Your task to perform on an android device: Do I have any events this weekend? Image 0: 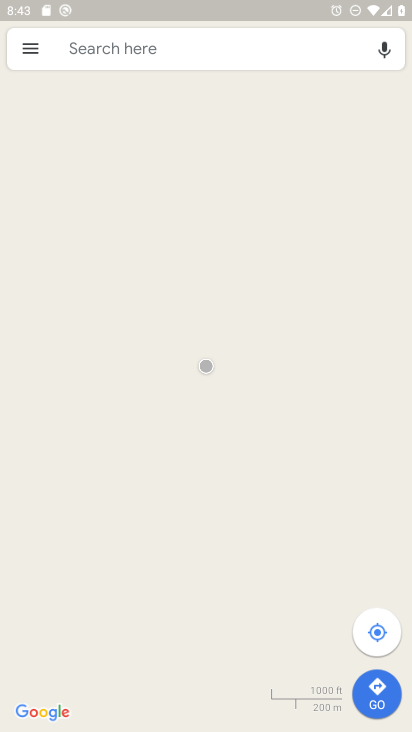
Step 0: press home button
Your task to perform on an android device: Do I have any events this weekend? Image 1: 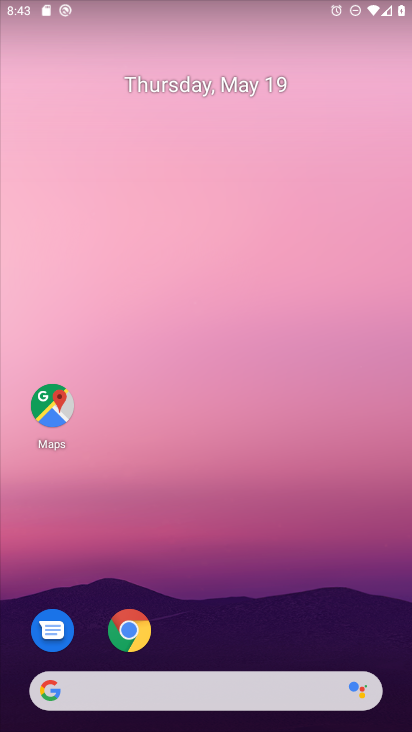
Step 1: click (245, 87)
Your task to perform on an android device: Do I have any events this weekend? Image 2: 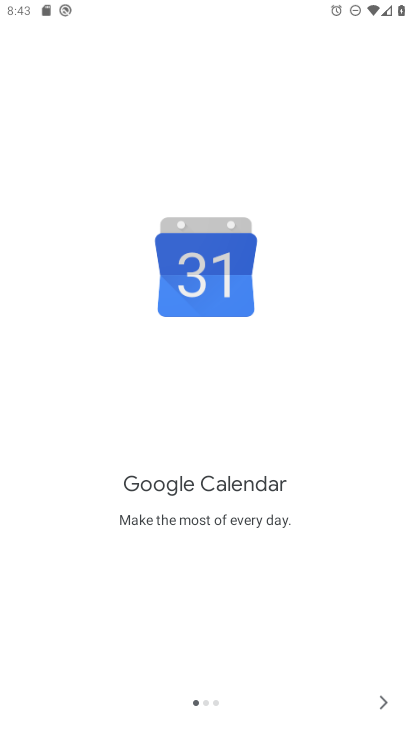
Step 2: click (381, 699)
Your task to perform on an android device: Do I have any events this weekend? Image 3: 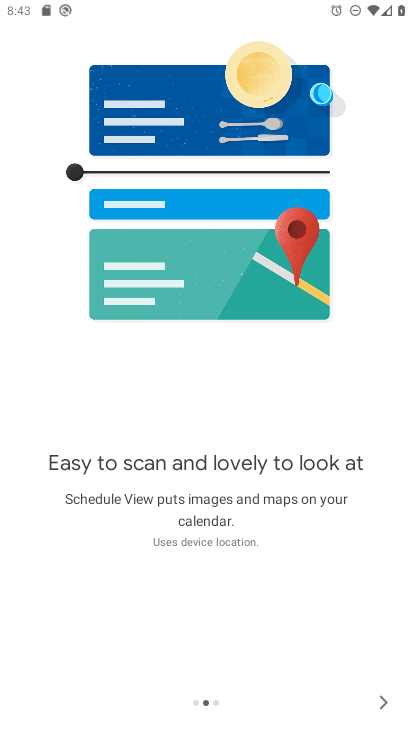
Step 3: click (381, 699)
Your task to perform on an android device: Do I have any events this weekend? Image 4: 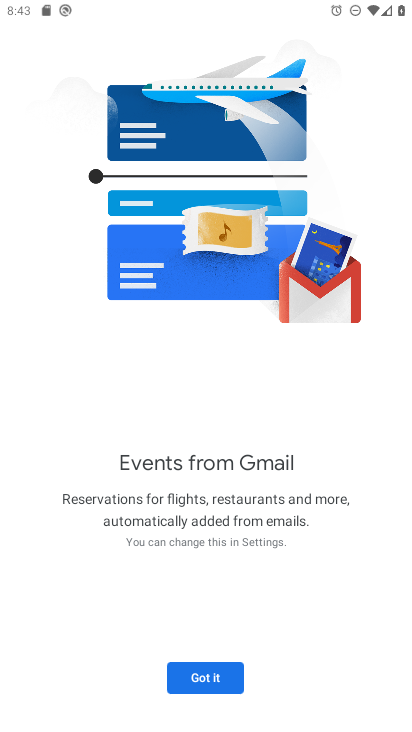
Step 4: click (223, 661)
Your task to perform on an android device: Do I have any events this weekend? Image 5: 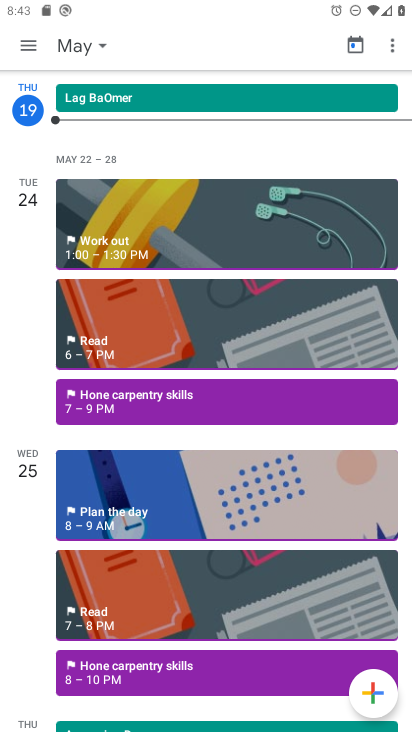
Step 5: click (88, 43)
Your task to perform on an android device: Do I have any events this weekend? Image 6: 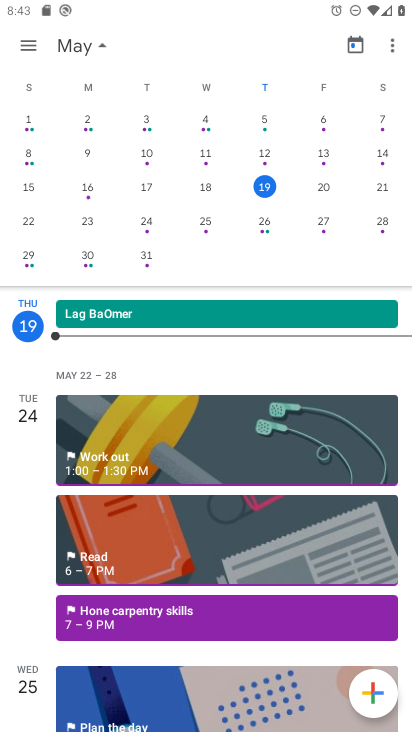
Step 6: click (375, 187)
Your task to perform on an android device: Do I have any events this weekend? Image 7: 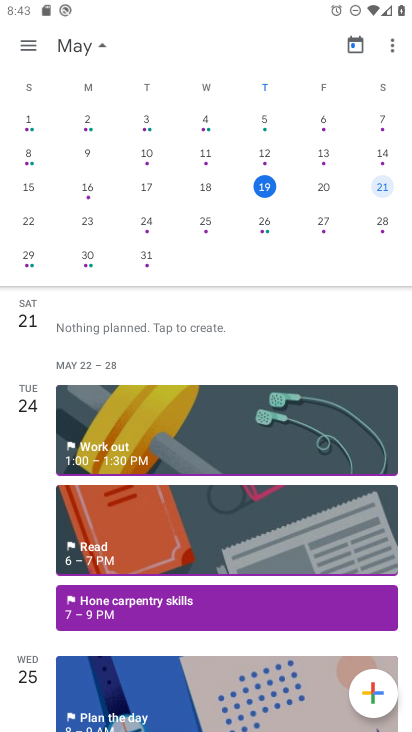
Step 7: task complete